Your task to perform on an android device: Find a nice sofa on eBay Image 0: 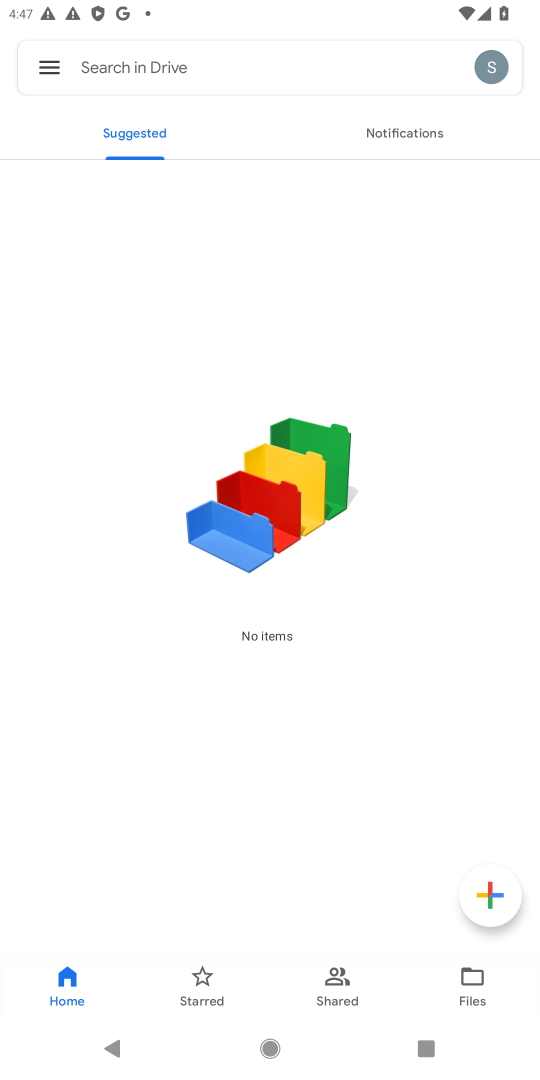
Step 0: press home button
Your task to perform on an android device: Find a nice sofa on eBay Image 1: 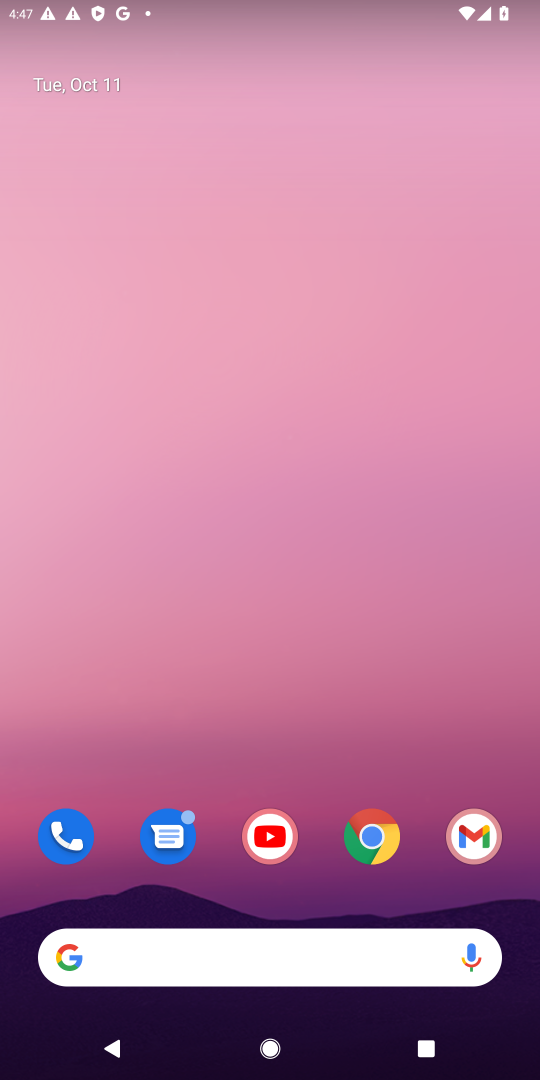
Step 1: click (379, 839)
Your task to perform on an android device: Find a nice sofa on eBay Image 2: 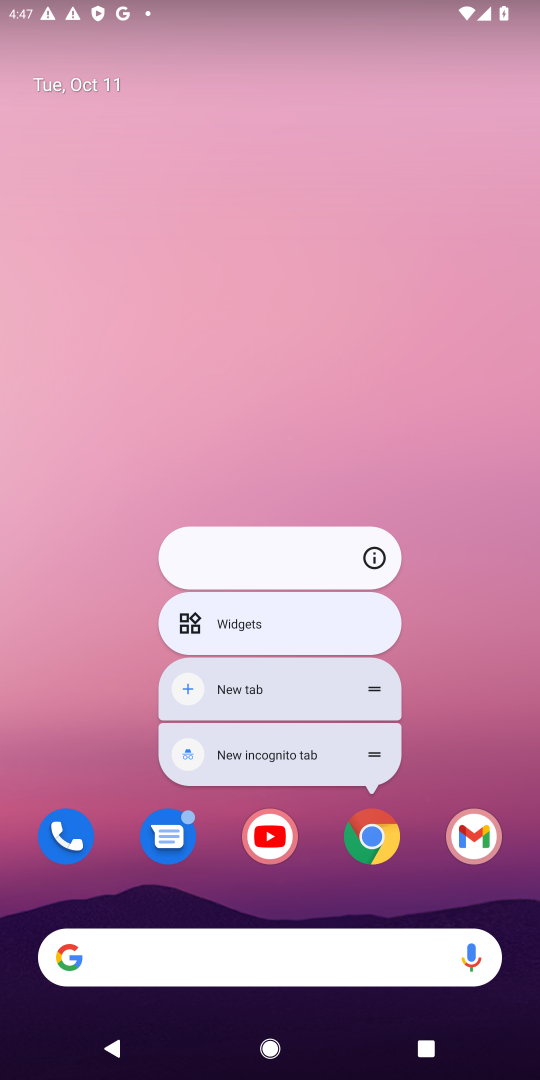
Step 2: click (374, 838)
Your task to perform on an android device: Find a nice sofa on eBay Image 3: 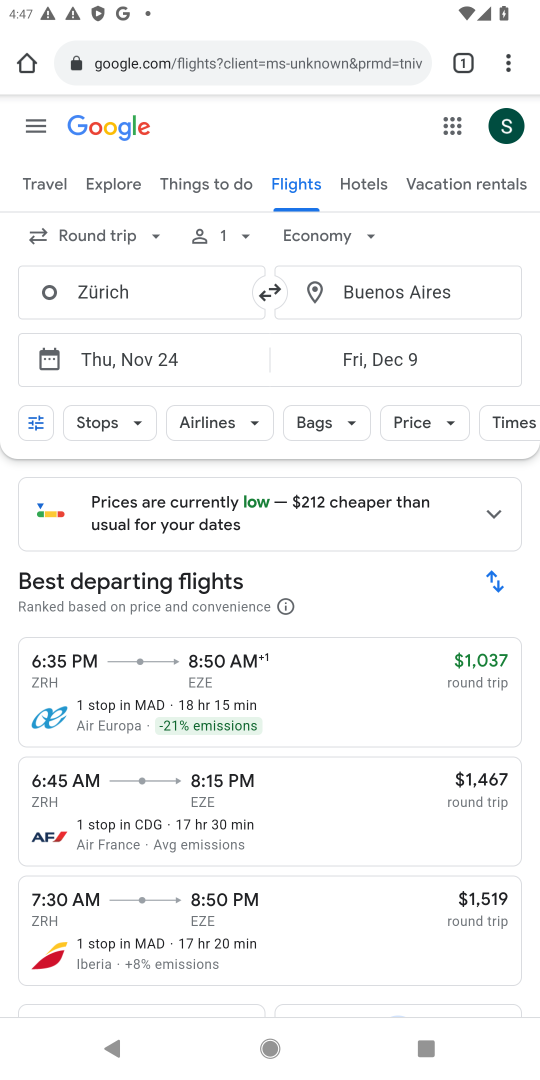
Step 3: click (327, 63)
Your task to perform on an android device: Find a nice sofa on eBay Image 4: 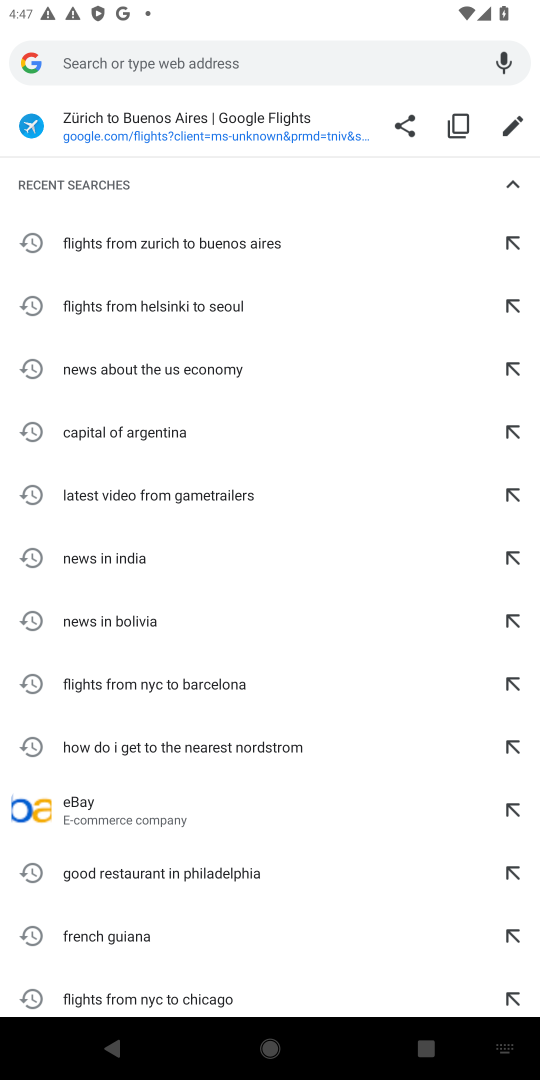
Step 4: type "nice sofa on eBay"
Your task to perform on an android device: Find a nice sofa on eBay Image 5: 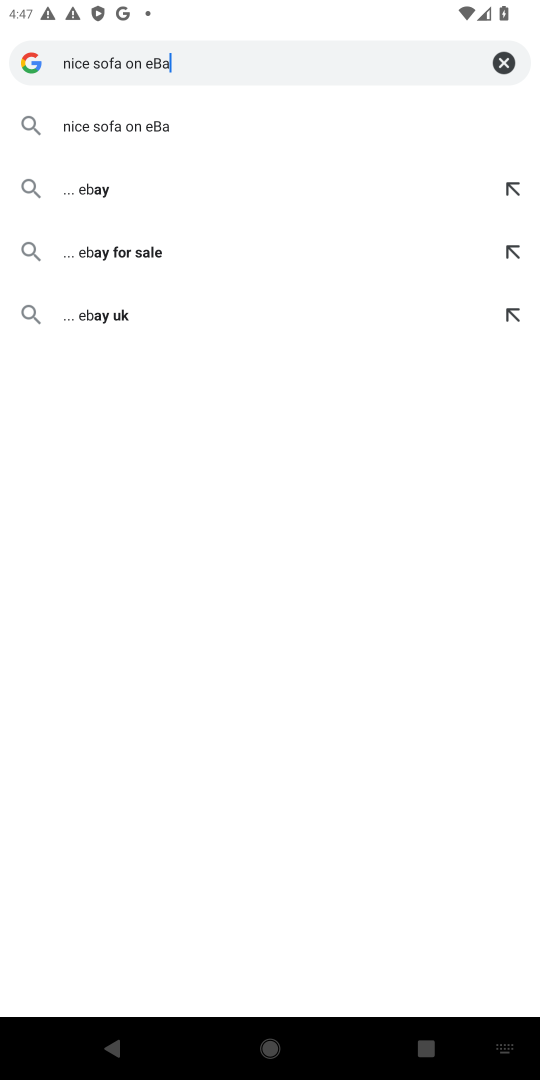
Step 5: press enter
Your task to perform on an android device: Find a nice sofa on eBay Image 6: 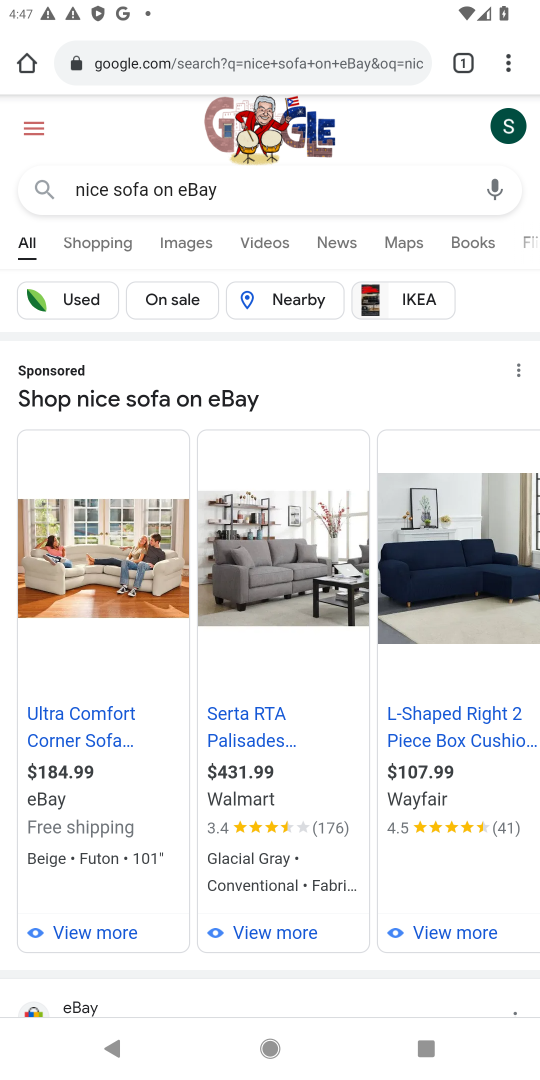
Step 6: drag from (248, 746) to (353, 505)
Your task to perform on an android device: Find a nice sofa on eBay Image 7: 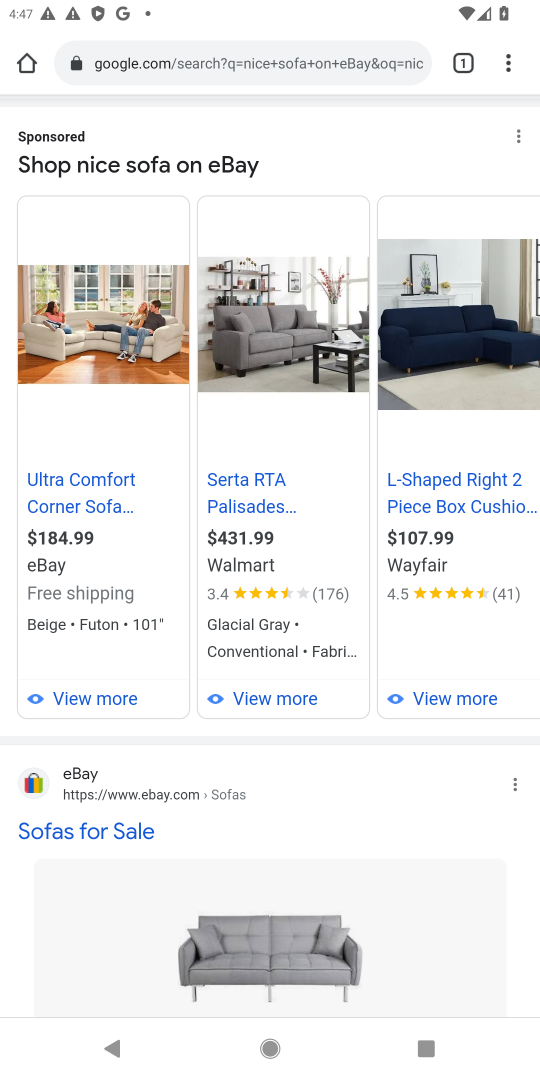
Step 7: drag from (299, 757) to (457, 459)
Your task to perform on an android device: Find a nice sofa on eBay Image 8: 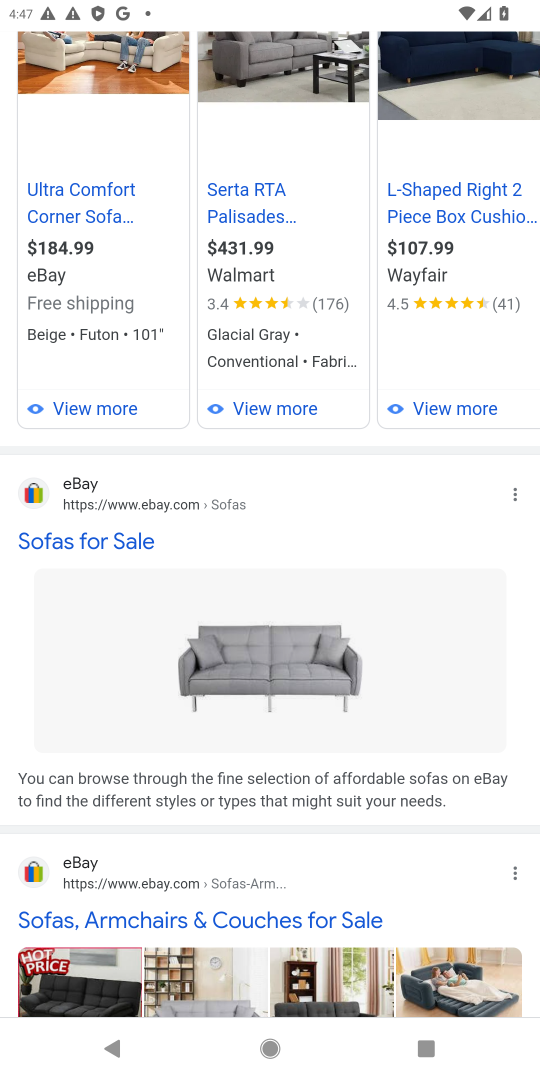
Step 8: drag from (153, 713) to (292, 472)
Your task to perform on an android device: Find a nice sofa on eBay Image 9: 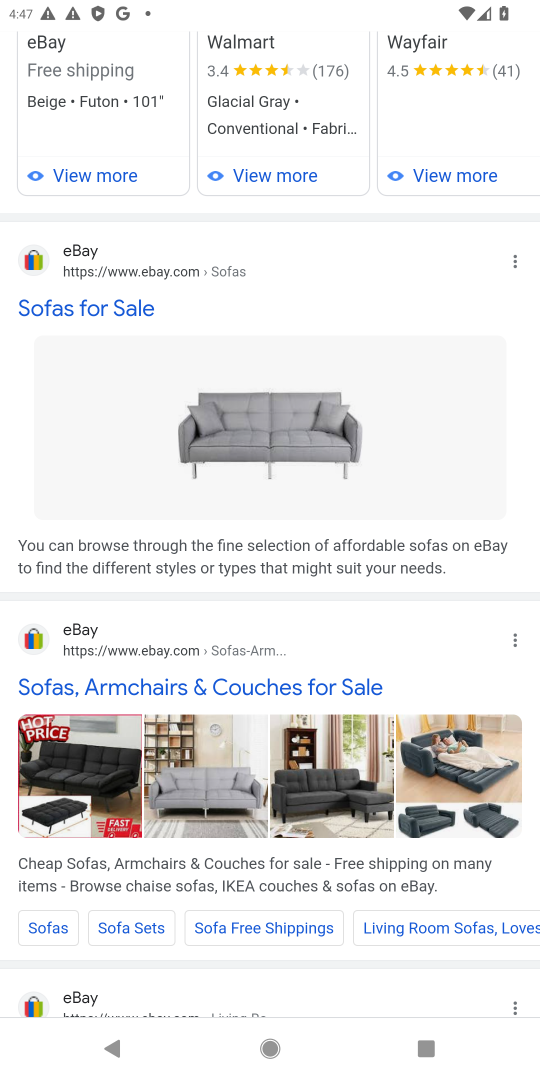
Step 9: click (255, 689)
Your task to perform on an android device: Find a nice sofa on eBay Image 10: 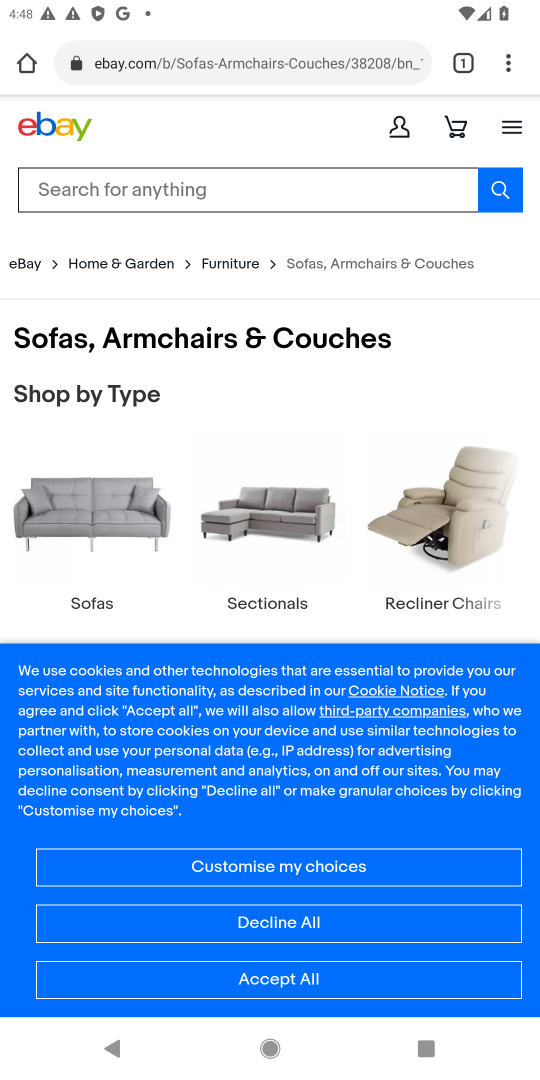
Step 10: click (296, 978)
Your task to perform on an android device: Find a nice sofa on eBay Image 11: 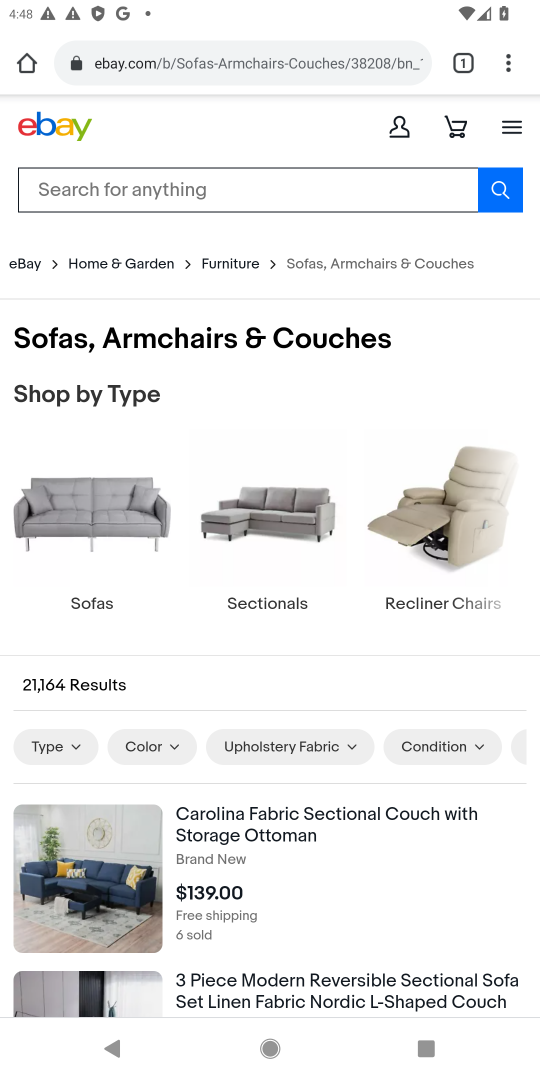
Step 11: task complete